Your task to perform on an android device: open device folders in google photos Image 0: 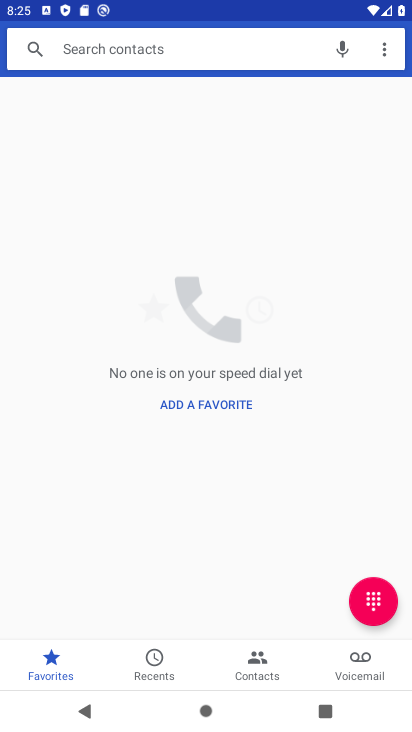
Step 0: press home button
Your task to perform on an android device: open device folders in google photos Image 1: 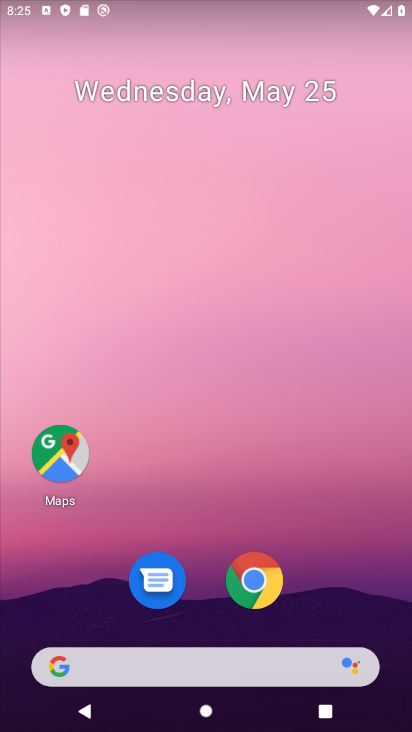
Step 1: drag from (14, 644) to (300, 118)
Your task to perform on an android device: open device folders in google photos Image 2: 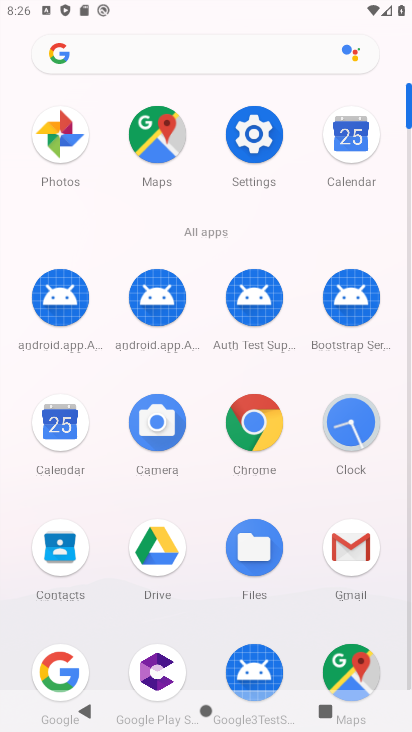
Step 2: drag from (8, 625) to (248, 207)
Your task to perform on an android device: open device folders in google photos Image 3: 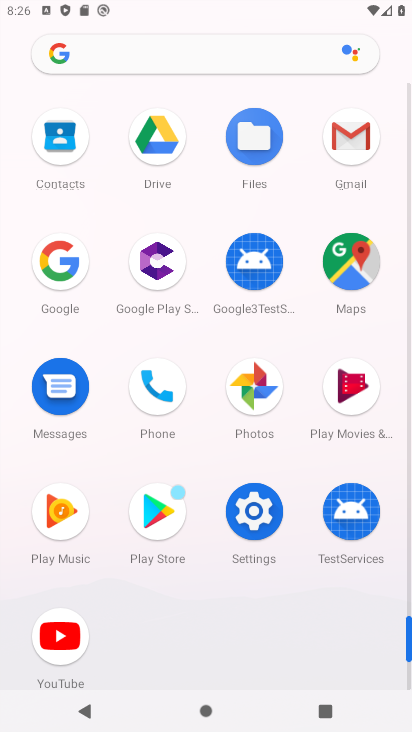
Step 3: click (254, 383)
Your task to perform on an android device: open device folders in google photos Image 4: 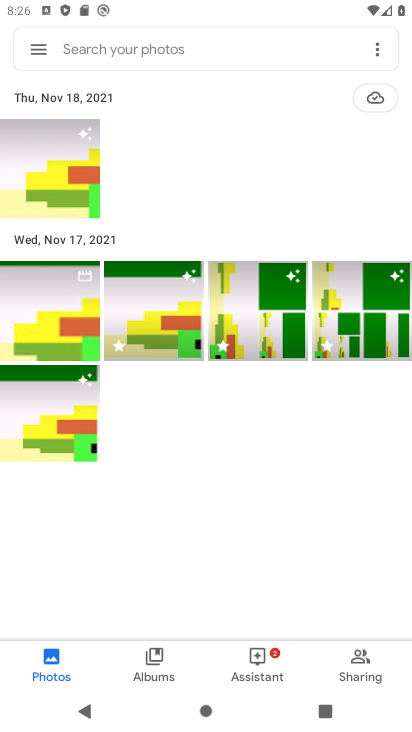
Step 4: click (47, 46)
Your task to perform on an android device: open device folders in google photos Image 5: 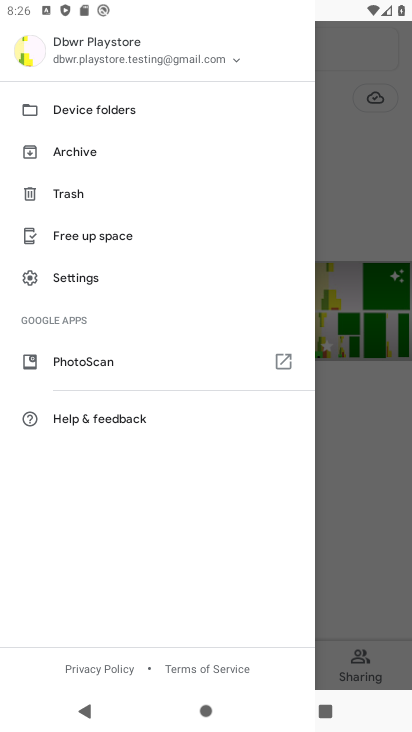
Step 5: click (53, 119)
Your task to perform on an android device: open device folders in google photos Image 6: 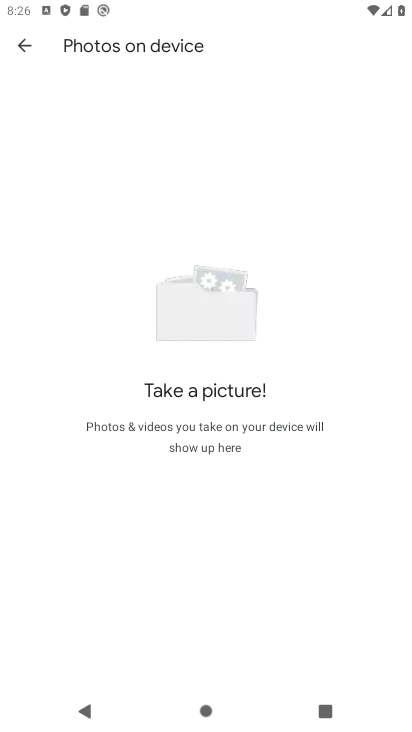
Step 6: task complete